Your task to perform on an android device: change the clock display to analog Image 0: 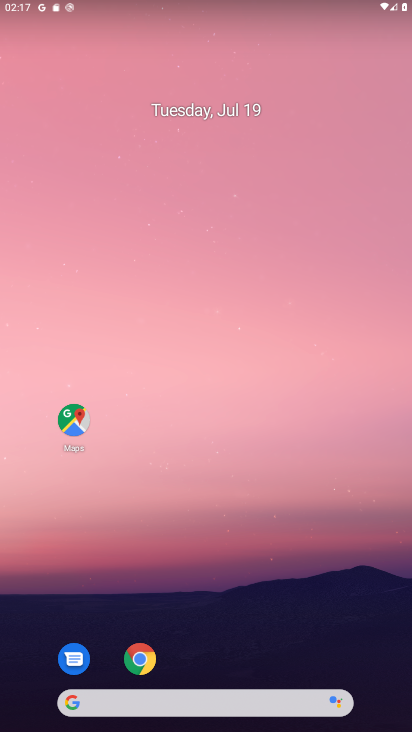
Step 0: drag from (226, 675) to (243, 248)
Your task to perform on an android device: change the clock display to analog Image 1: 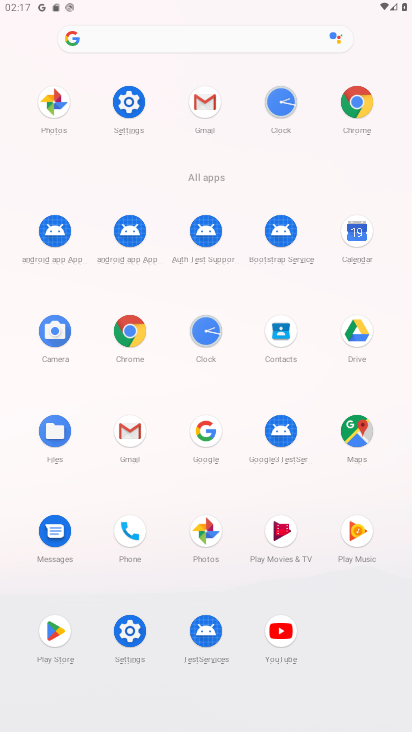
Step 1: click (206, 342)
Your task to perform on an android device: change the clock display to analog Image 2: 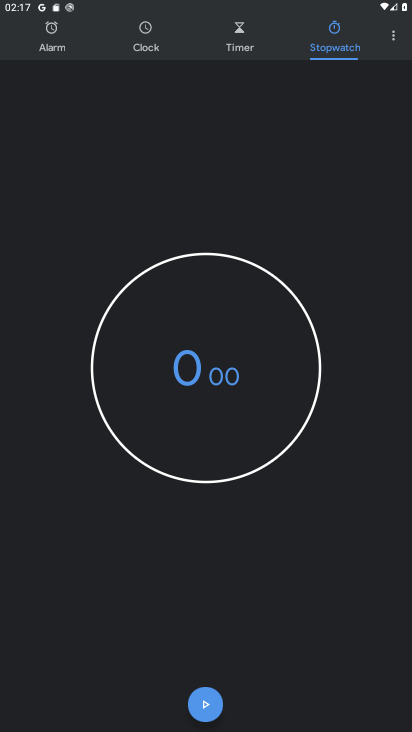
Step 2: click (394, 42)
Your task to perform on an android device: change the clock display to analog Image 3: 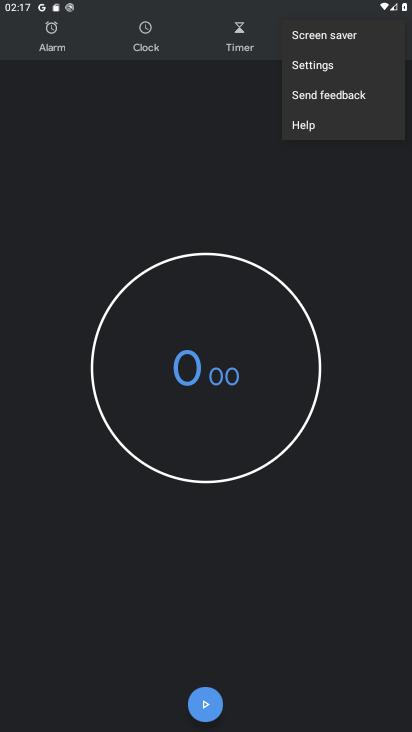
Step 3: click (305, 72)
Your task to perform on an android device: change the clock display to analog Image 4: 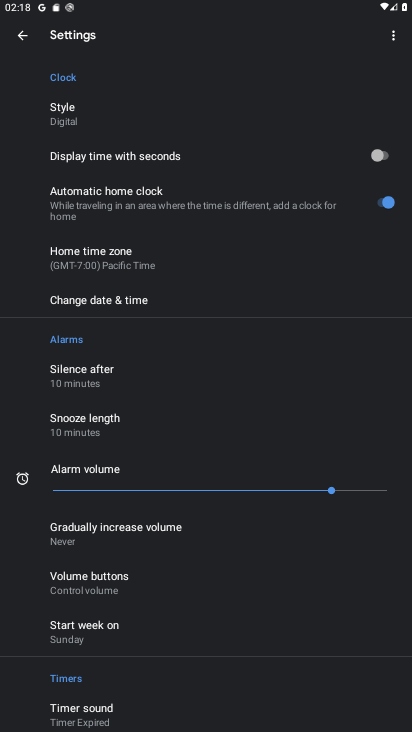
Step 4: click (74, 114)
Your task to perform on an android device: change the clock display to analog Image 5: 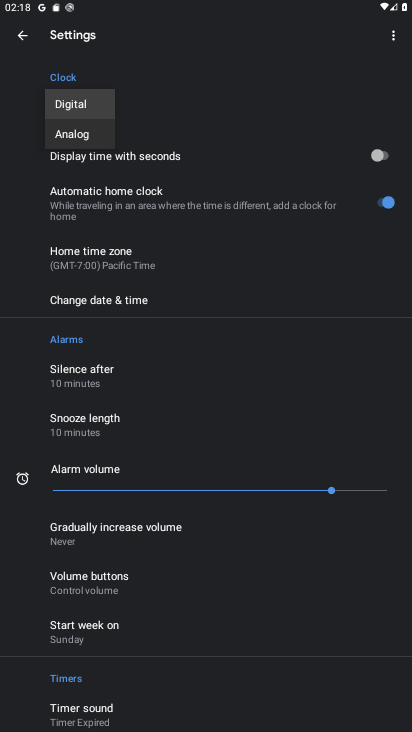
Step 5: click (80, 131)
Your task to perform on an android device: change the clock display to analog Image 6: 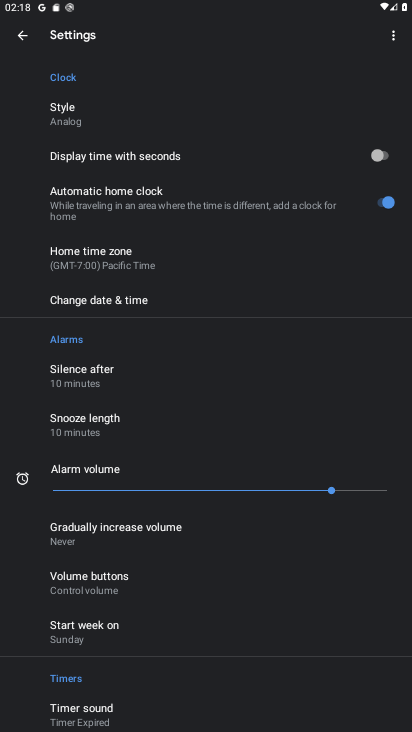
Step 6: task complete